Your task to perform on an android device: Open Youtube and go to the subscriptions tab Image 0: 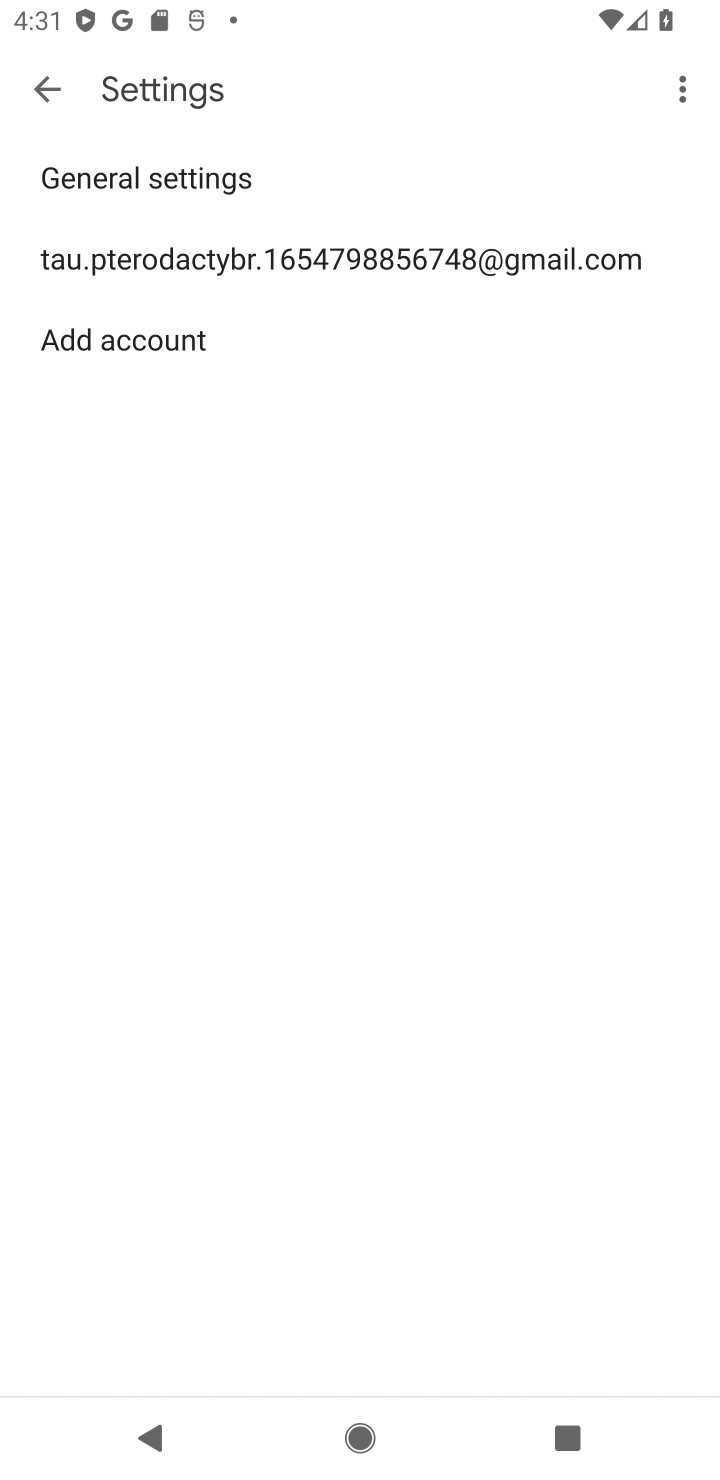
Step 0: press home button
Your task to perform on an android device: Open Youtube and go to the subscriptions tab Image 1: 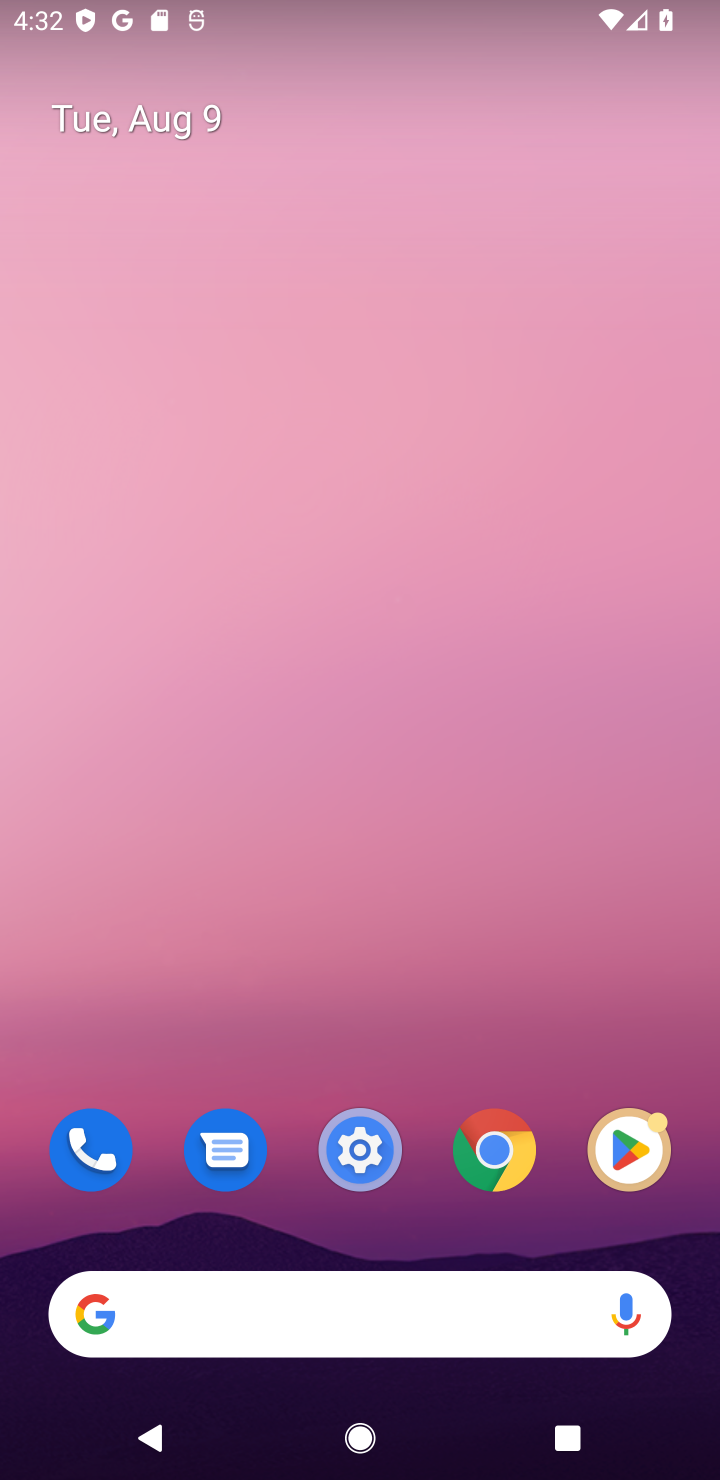
Step 1: drag from (364, 1257) to (405, 14)
Your task to perform on an android device: Open Youtube and go to the subscriptions tab Image 2: 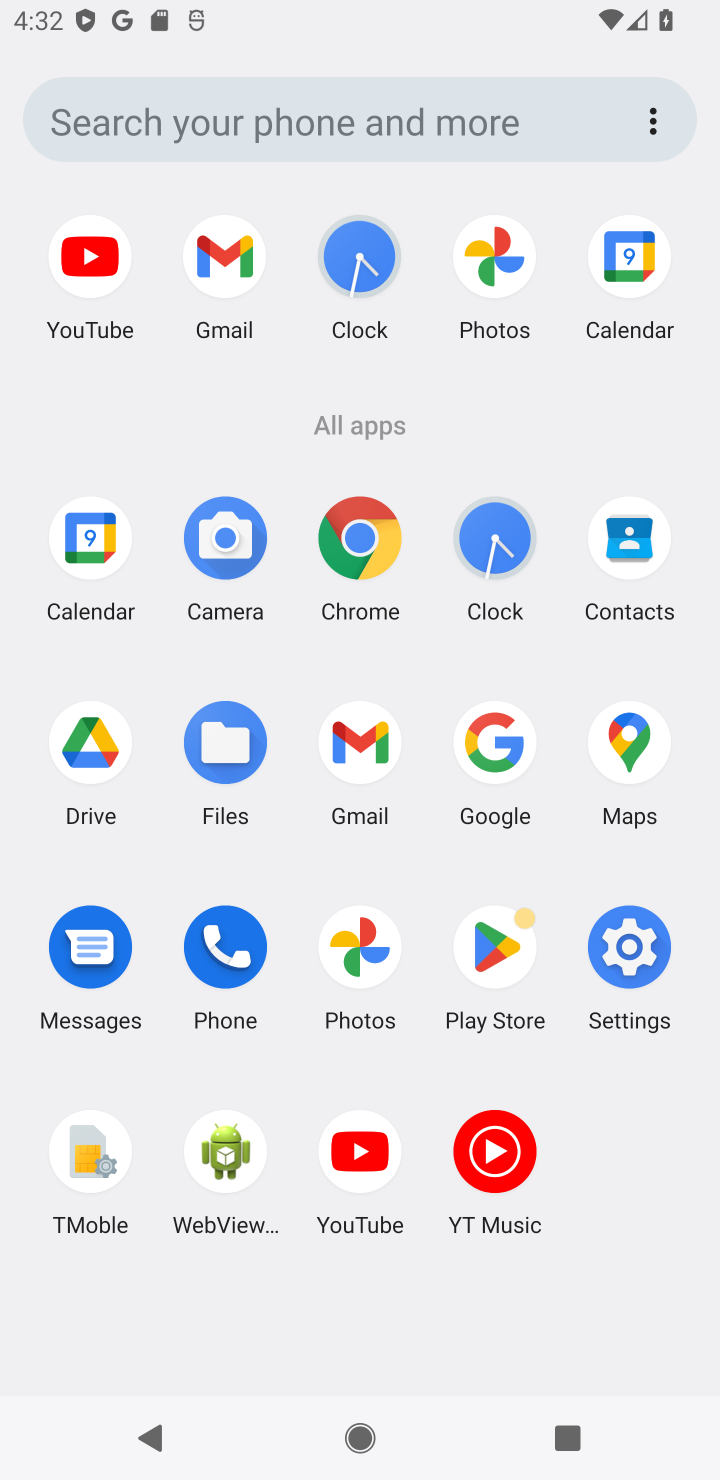
Step 2: click (351, 1142)
Your task to perform on an android device: Open Youtube and go to the subscriptions tab Image 3: 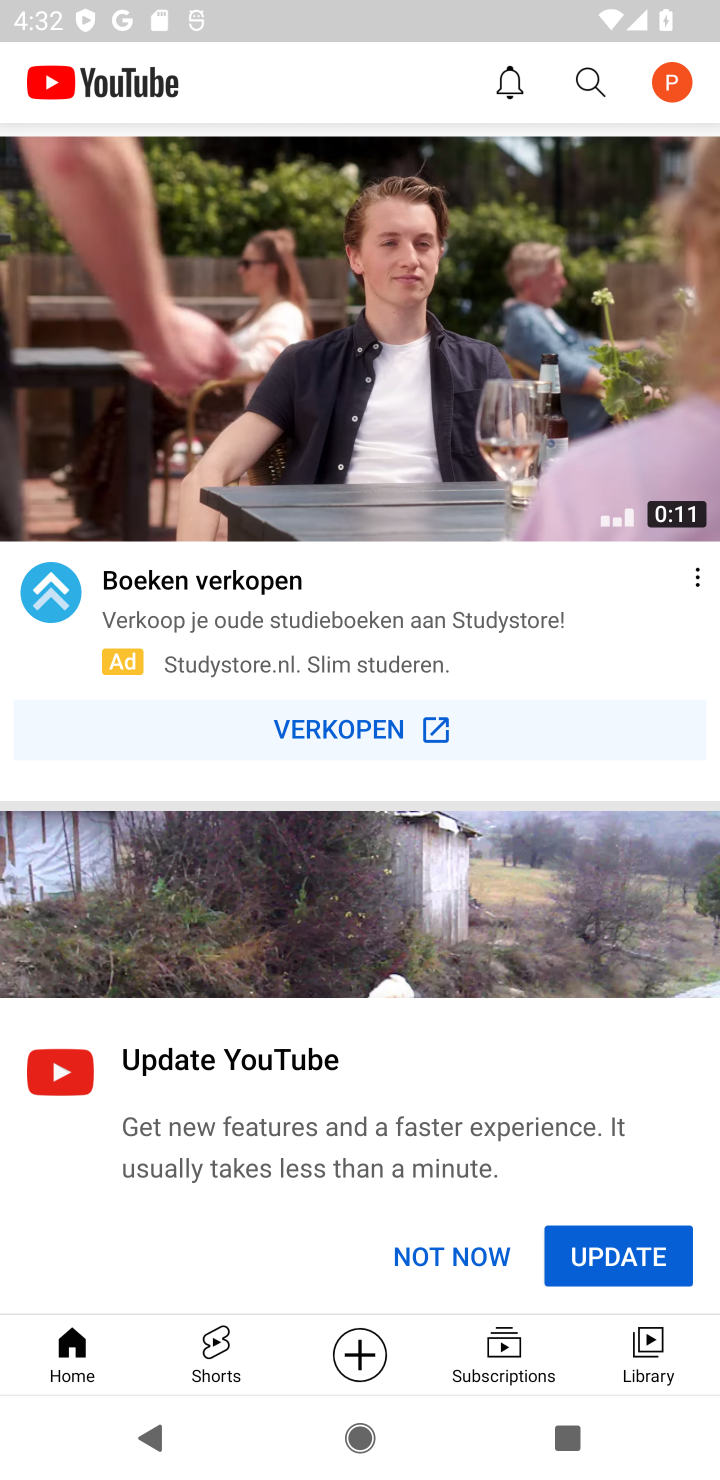
Step 3: click (494, 1368)
Your task to perform on an android device: Open Youtube and go to the subscriptions tab Image 4: 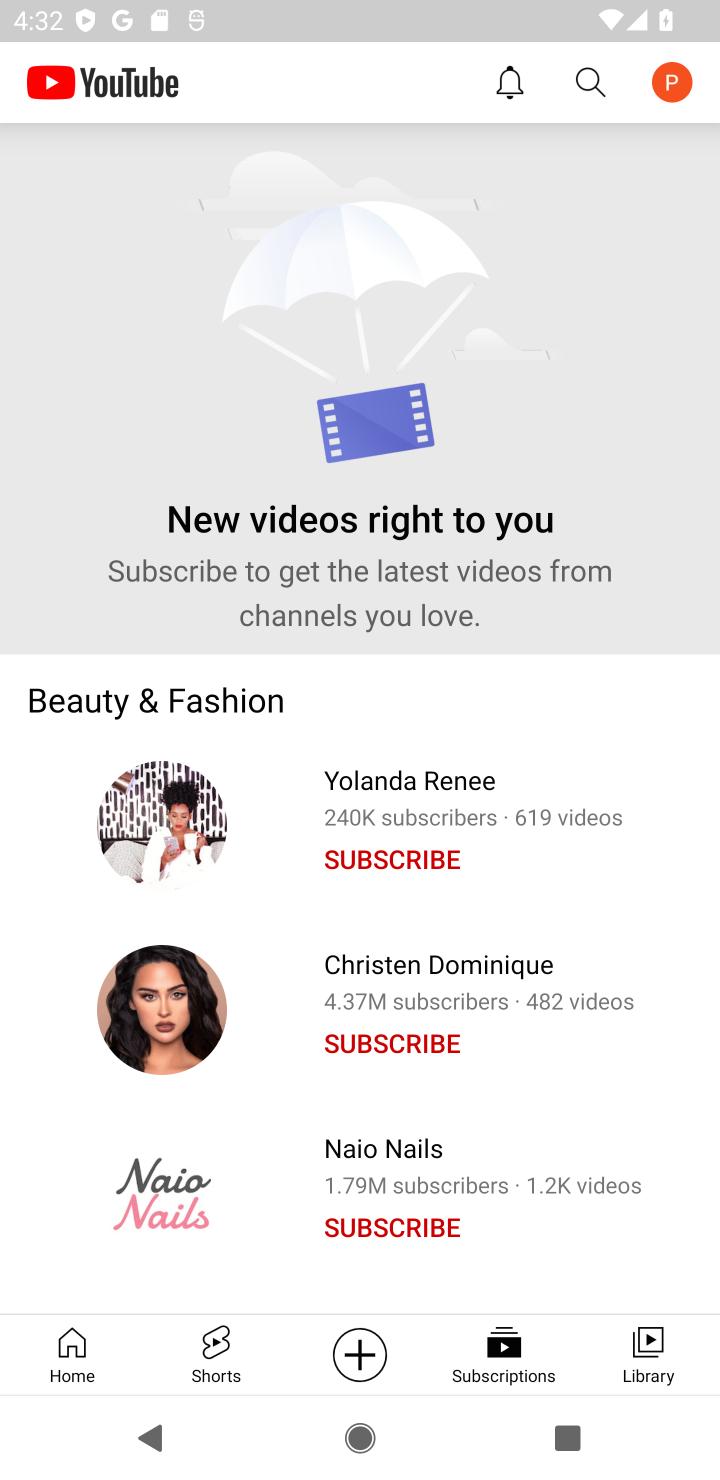
Step 4: task complete